Your task to perform on an android device: see sites visited before in the chrome app Image 0: 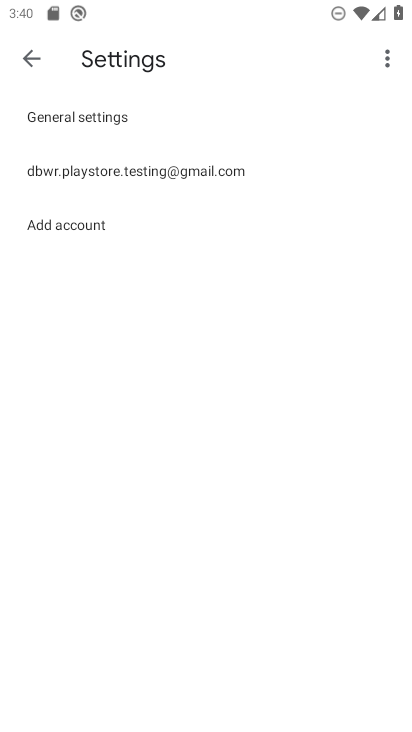
Step 0: press back button
Your task to perform on an android device: see sites visited before in the chrome app Image 1: 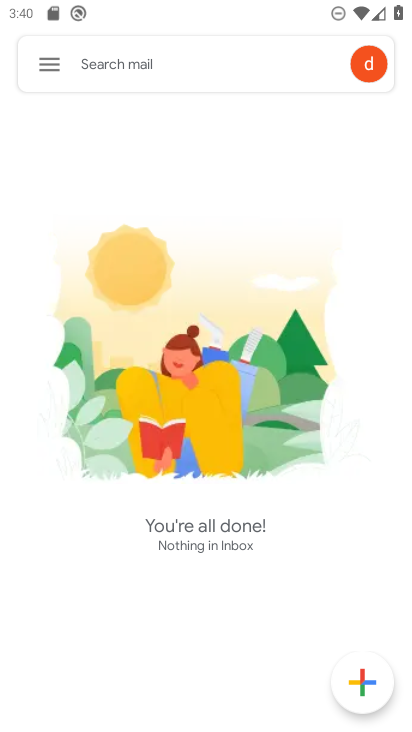
Step 1: press home button
Your task to perform on an android device: see sites visited before in the chrome app Image 2: 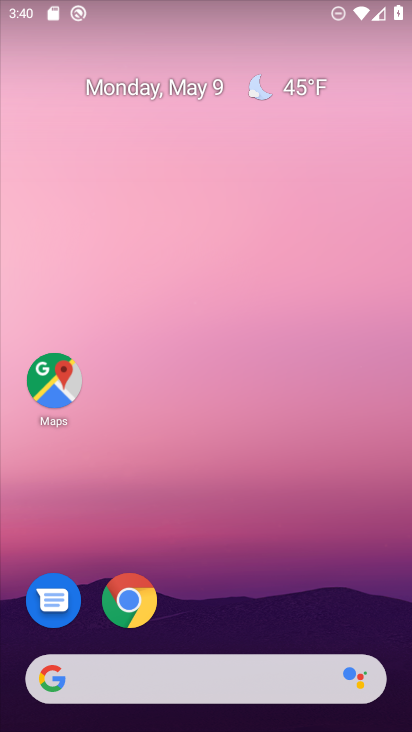
Step 2: drag from (267, 600) to (204, 21)
Your task to perform on an android device: see sites visited before in the chrome app Image 3: 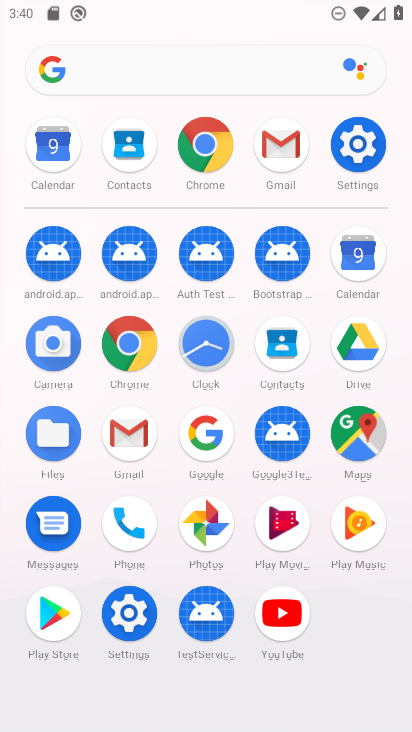
Step 3: drag from (8, 508) to (1, 244)
Your task to perform on an android device: see sites visited before in the chrome app Image 4: 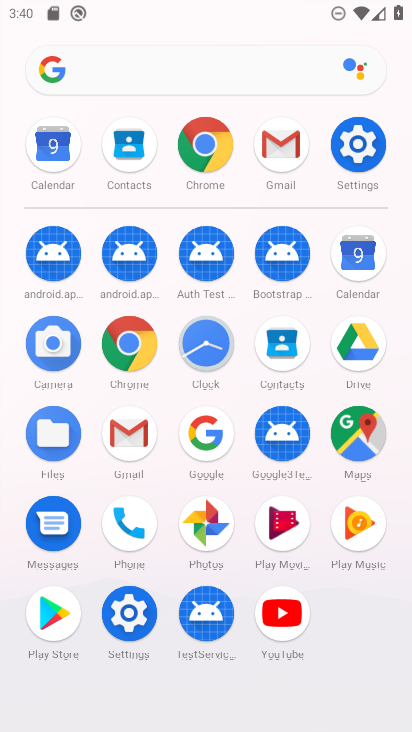
Step 4: click (121, 339)
Your task to perform on an android device: see sites visited before in the chrome app Image 5: 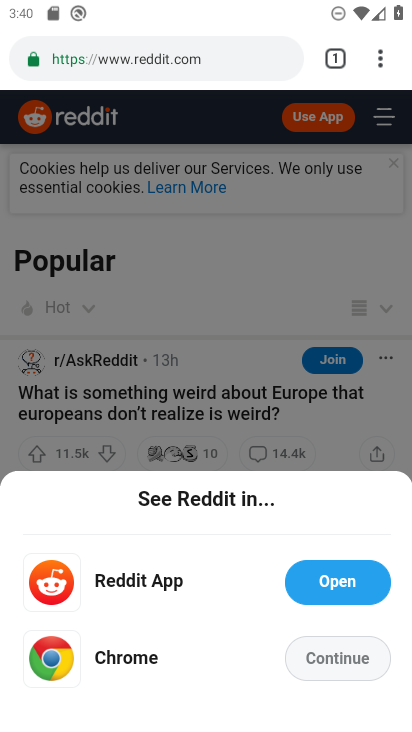
Step 5: task complete